Your task to perform on an android device: change alarm snooze length Image 0: 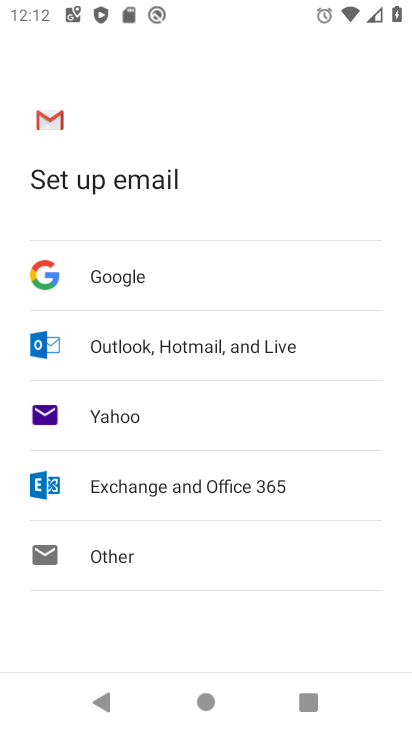
Step 0: press home button
Your task to perform on an android device: change alarm snooze length Image 1: 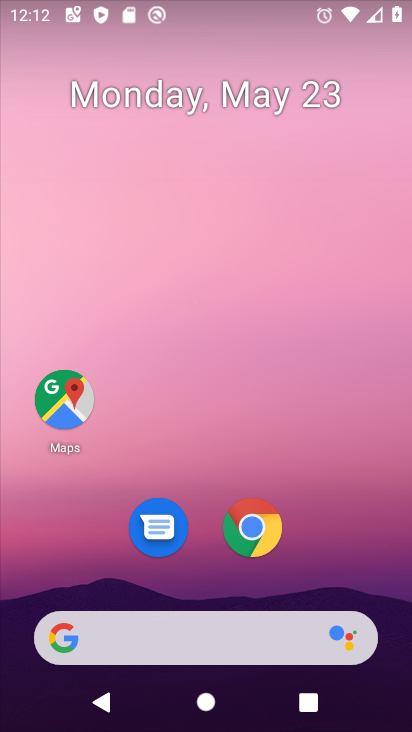
Step 1: drag from (381, 521) to (283, 150)
Your task to perform on an android device: change alarm snooze length Image 2: 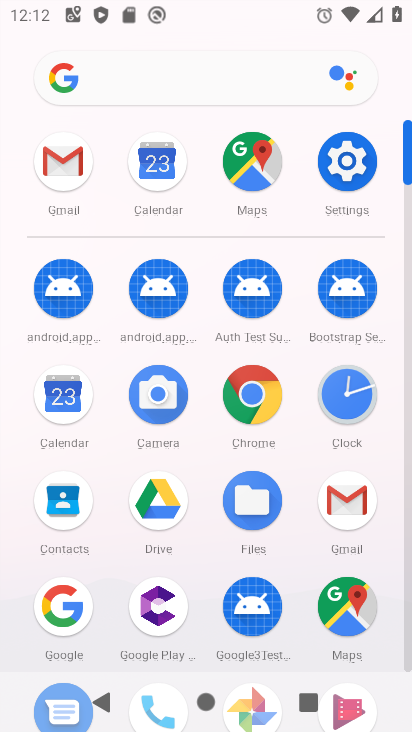
Step 2: click (356, 161)
Your task to perform on an android device: change alarm snooze length Image 3: 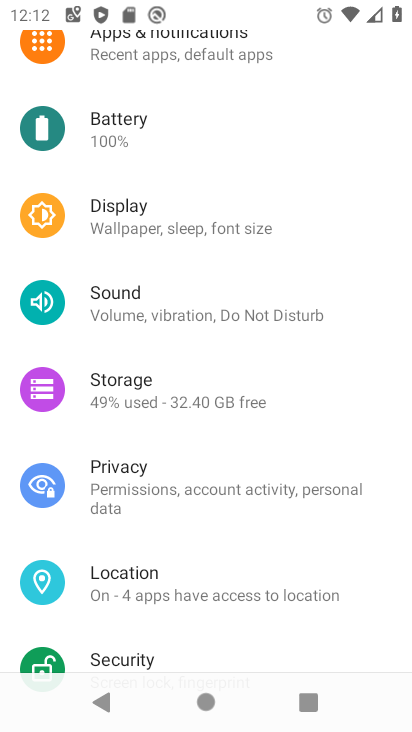
Step 3: drag from (302, 523) to (291, 255)
Your task to perform on an android device: change alarm snooze length Image 4: 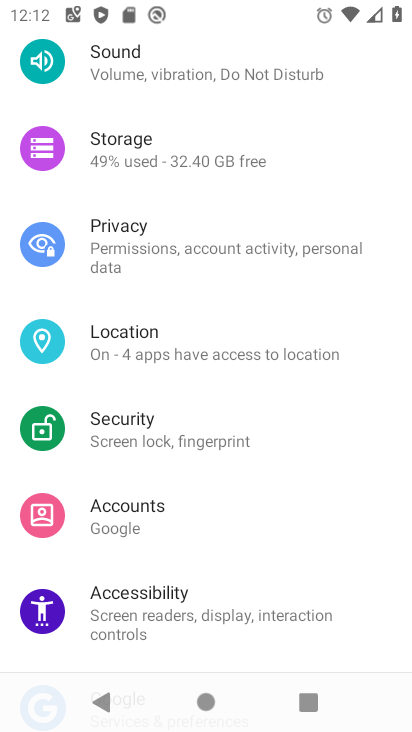
Step 4: press home button
Your task to perform on an android device: change alarm snooze length Image 5: 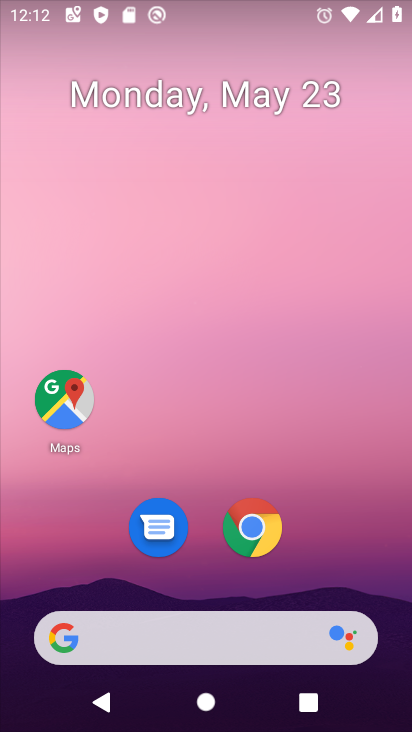
Step 5: drag from (344, 579) to (309, 203)
Your task to perform on an android device: change alarm snooze length Image 6: 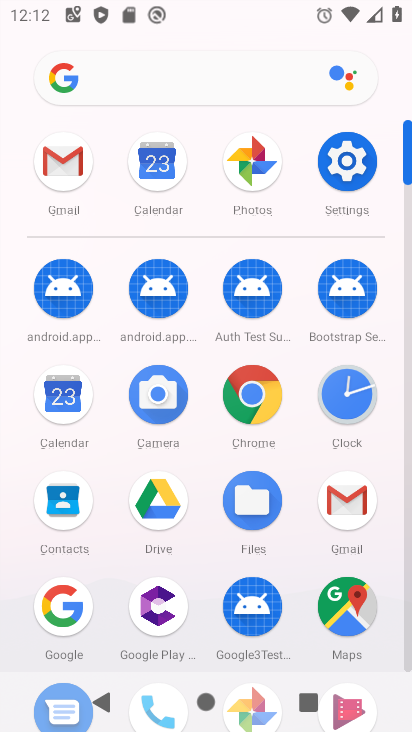
Step 6: click (336, 386)
Your task to perform on an android device: change alarm snooze length Image 7: 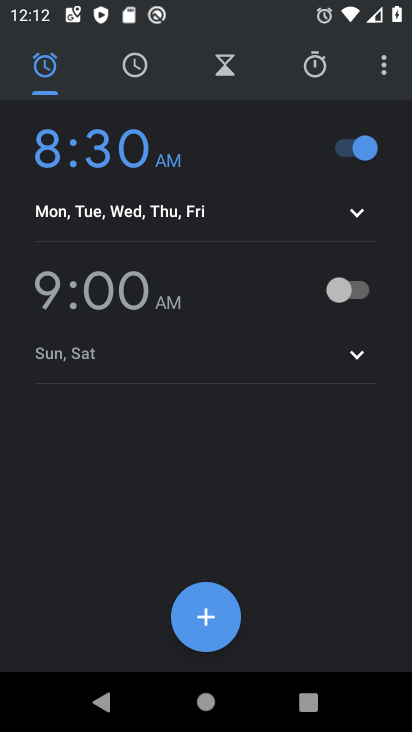
Step 7: click (390, 83)
Your task to perform on an android device: change alarm snooze length Image 8: 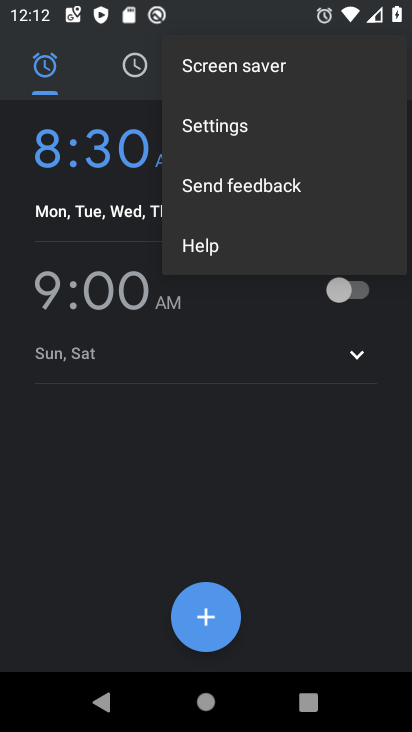
Step 8: click (324, 137)
Your task to perform on an android device: change alarm snooze length Image 9: 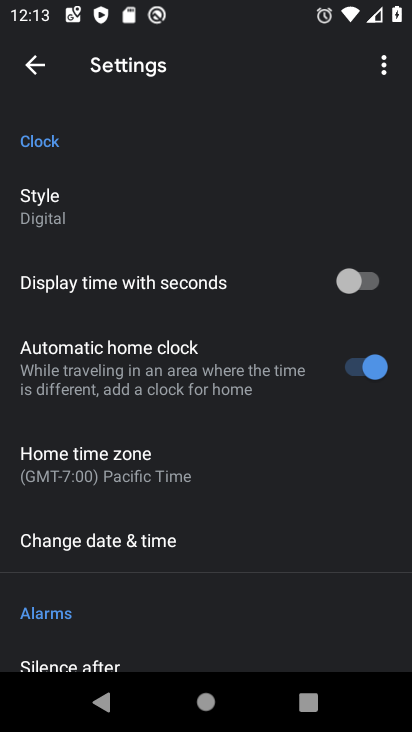
Step 9: drag from (224, 653) to (179, 521)
Your task to perform on an android device: change alarm snooze length Image 10: 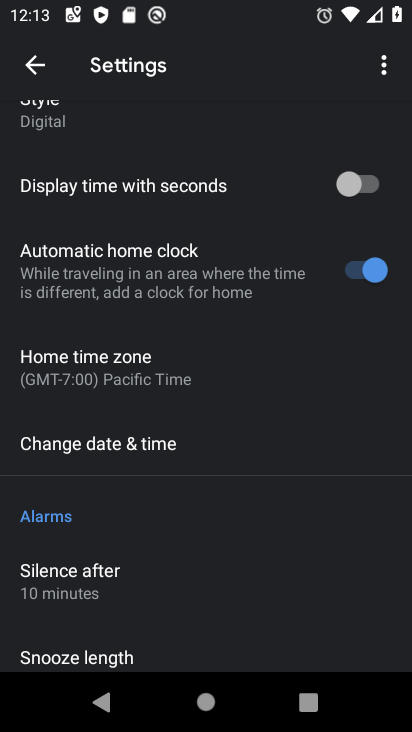
Step 10: click (149, 629)
Your task to perform on an android device: change alarm snooze length Image 11: 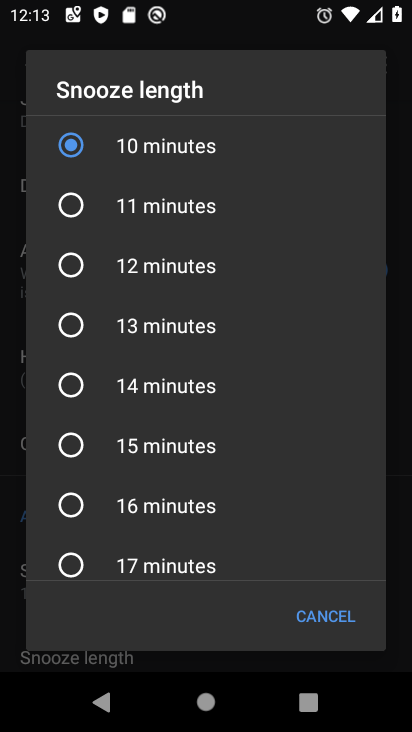
Step 11: click (215, 412)
Your task to perform on an android device: change alarm snooze length Image 12: 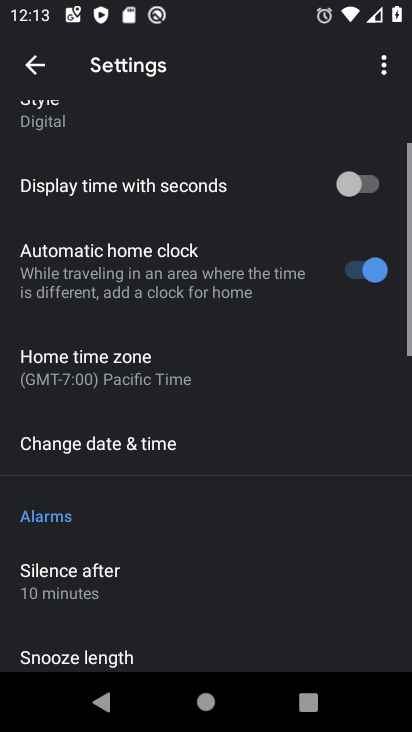
Step 12: task complete